Your task to perform on an android device: Open privacy settings Image 0: 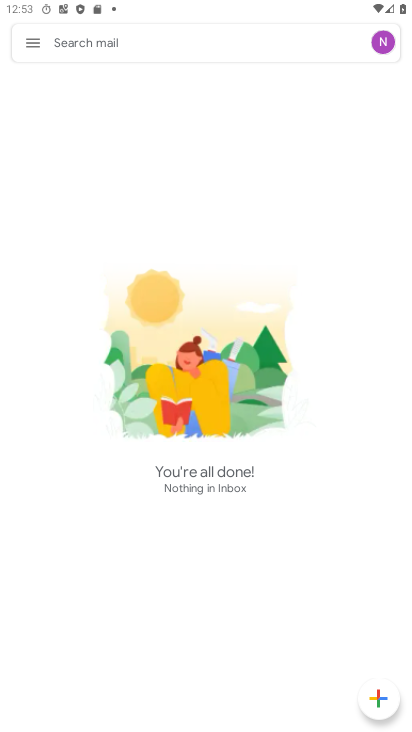
Step 0: press home button
Your task to perform on an android device: Open privacy settings Image 1: 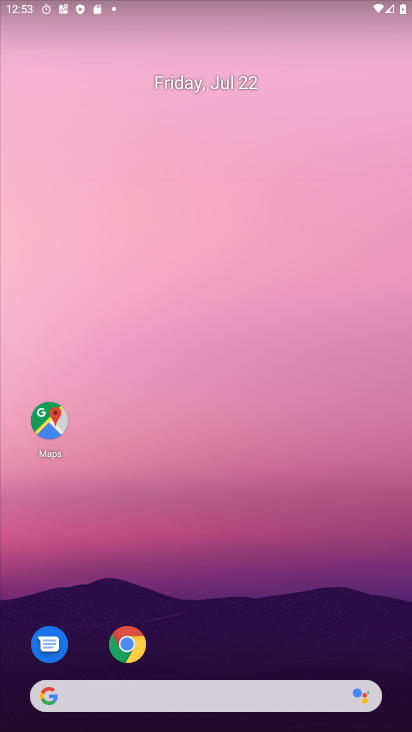
Step 1: drag from (194, 651) to (163, 172)
Your task to perform on an android device: Open privacy settings Image 2: 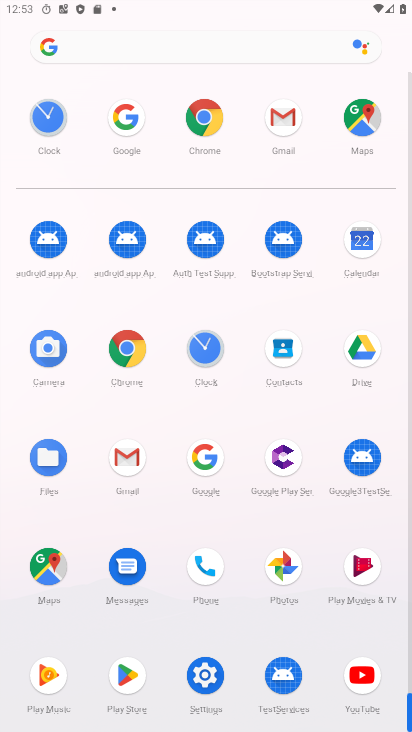
Step 2: click (213, 680)
Your task to perform on an android device: Open privacy settings Image 3: 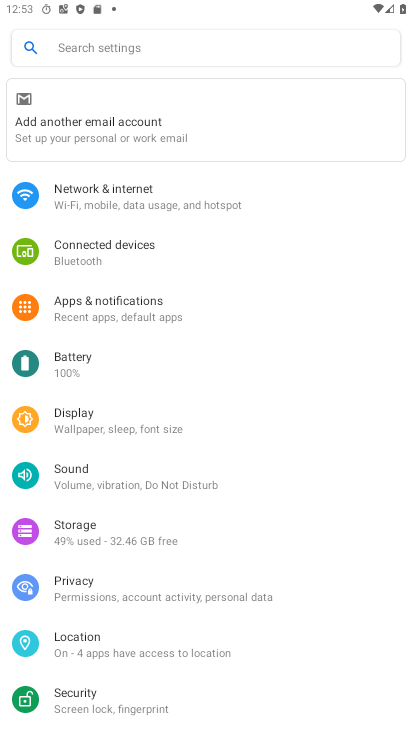
Step 3: drag from (185, 506) to (260, 100)
Your task to perform on an android device: Open privacy settings Image 4: 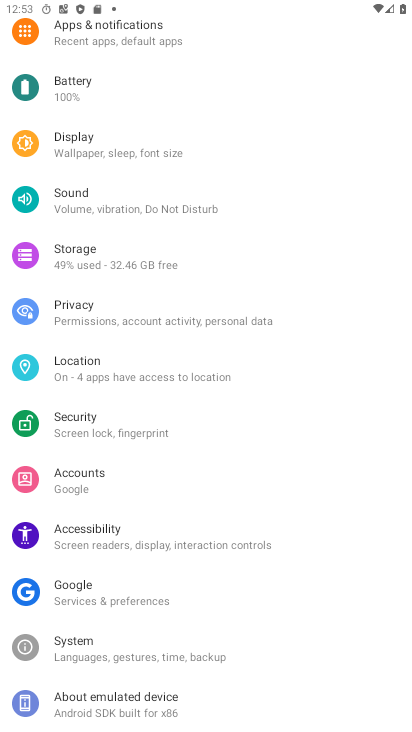
Step 4: click (158, 329)
Your task to perform on an android device: Open privacy settings Image 5: 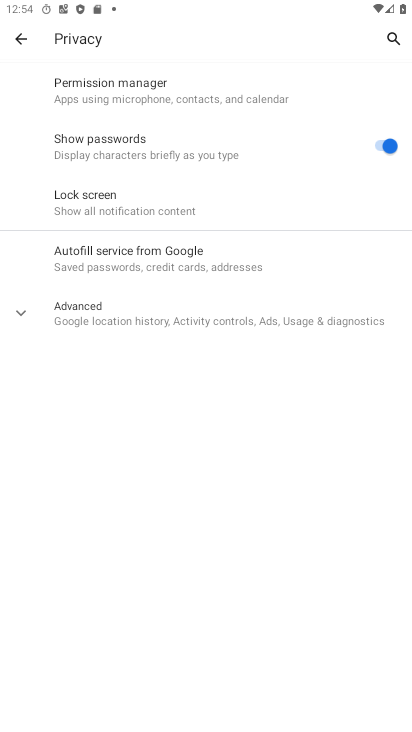
Step 5: task complete